Your task to perform on an android device: delete location history Image 0: 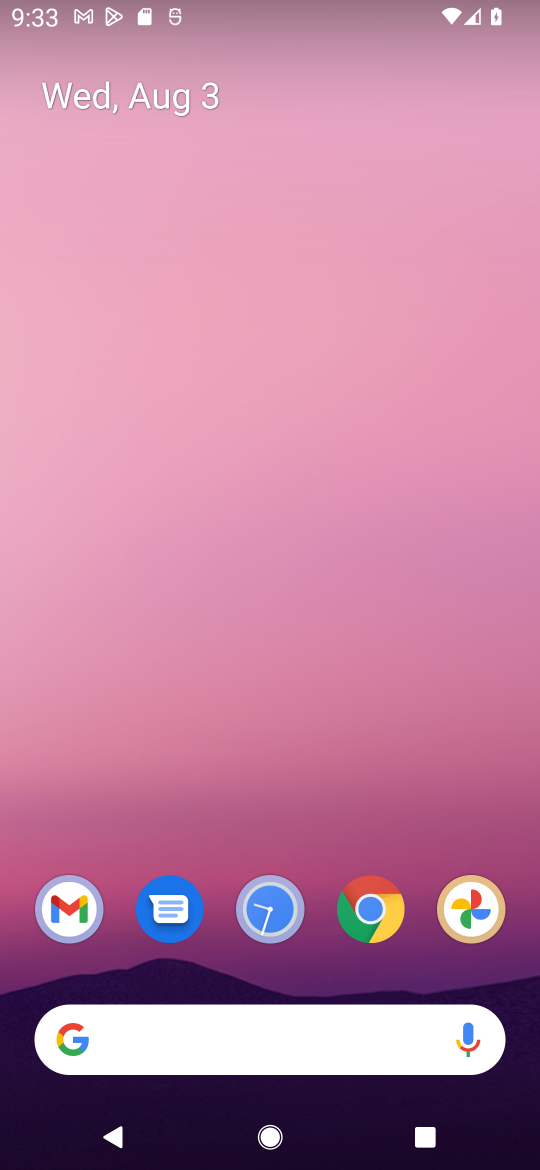
Step 0: press home button
Your task to perform on an android device: delete location history Image 1: 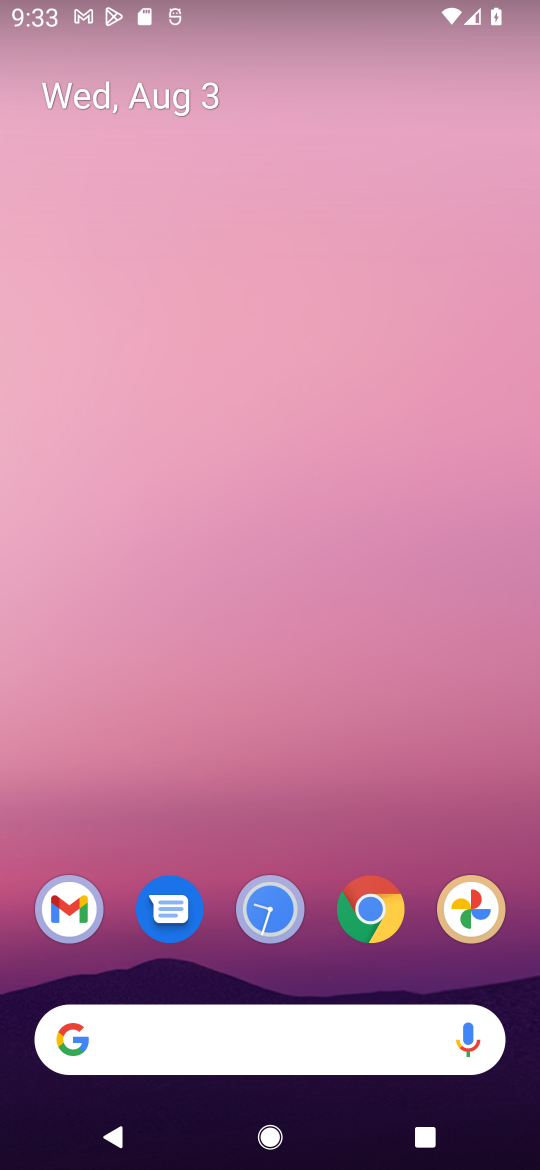
Step 1: drag from (439, 834) to (429, 366)
Your task to perform on an android device: delete location history Image 2: 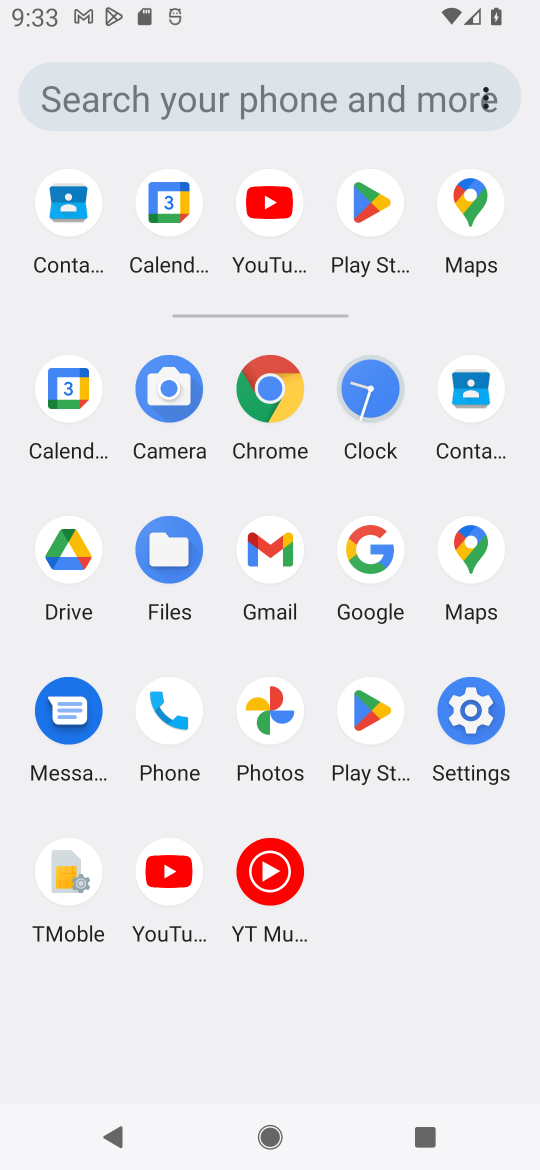
Step 2: click (477, 561)
Your task to perform on an android device: delete location history Image 3: 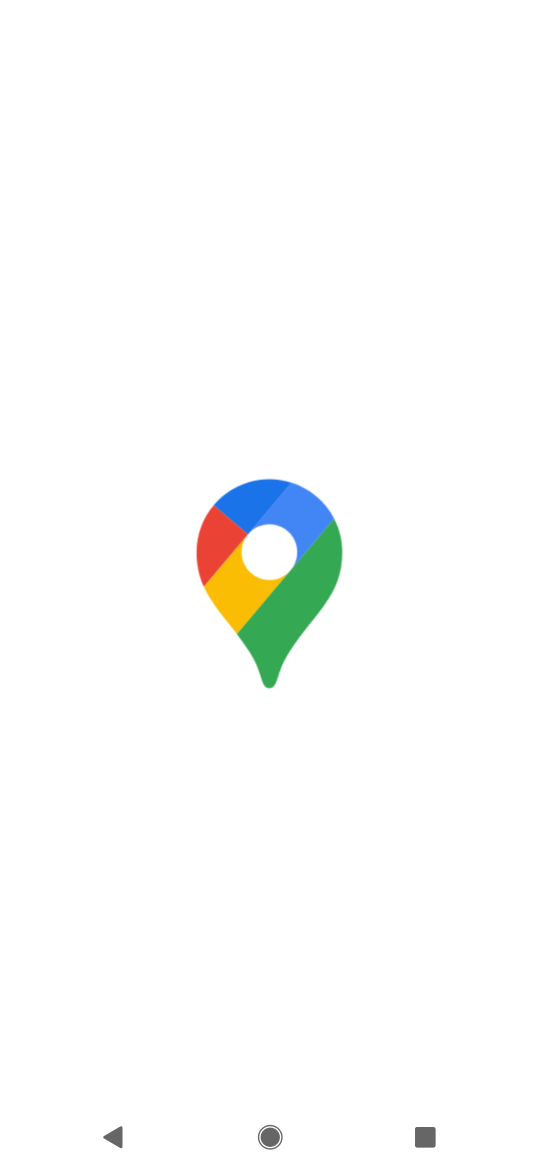
Step 3: task complete